Your task to perform on an android device: Open wifi settings Image 0: 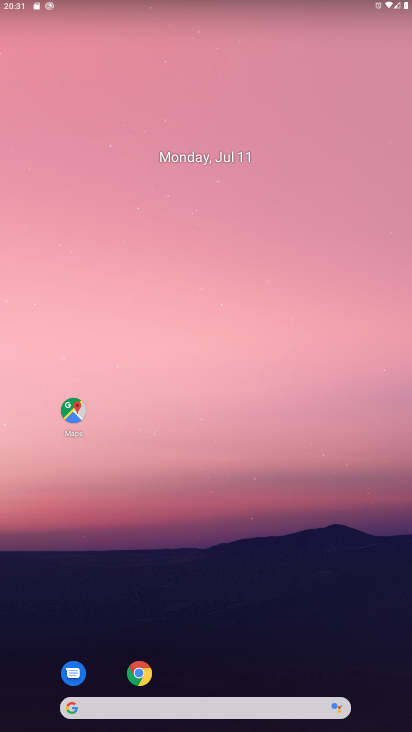
Step 0: drag from (206, 680) to (251, 6)
Your task to perform on an android device: Open wifi settings Image 1: 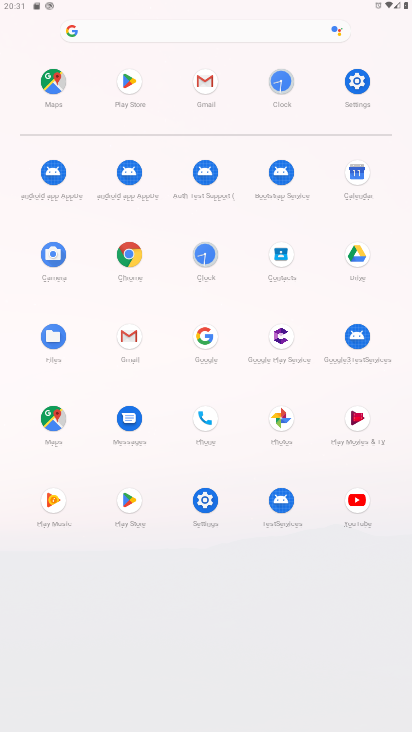
Step 1: click (356, 77)
Your task to perform on an android device: Open wifi settings Image 2: 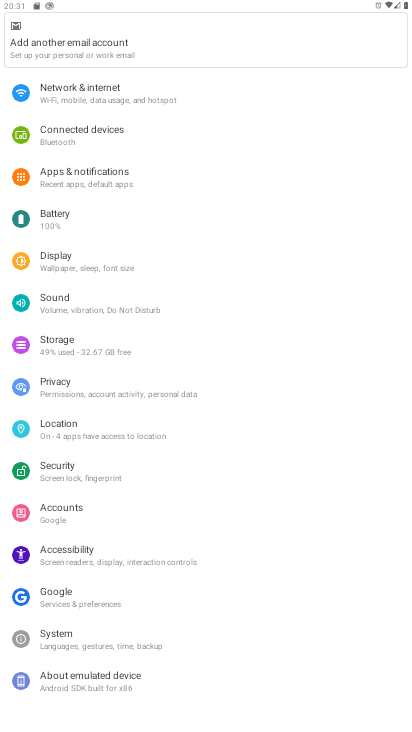
Step 2: click (134, 90)
Your task to perform on an android device: Open wifi settings Image 3: 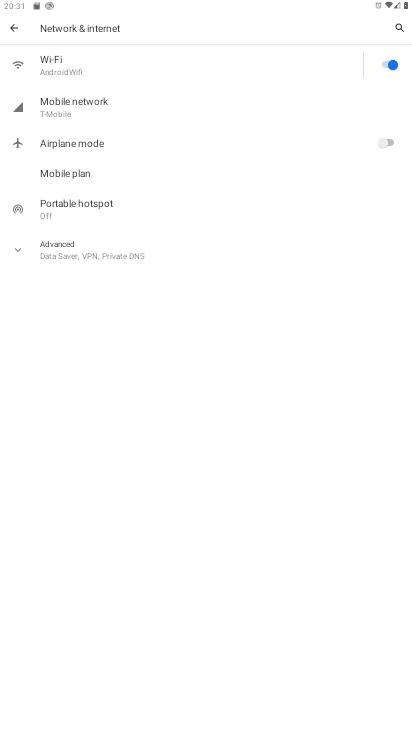
Step 3: click (84, 62)
Your task to perform on an android device: Open wifi settings Image 4: 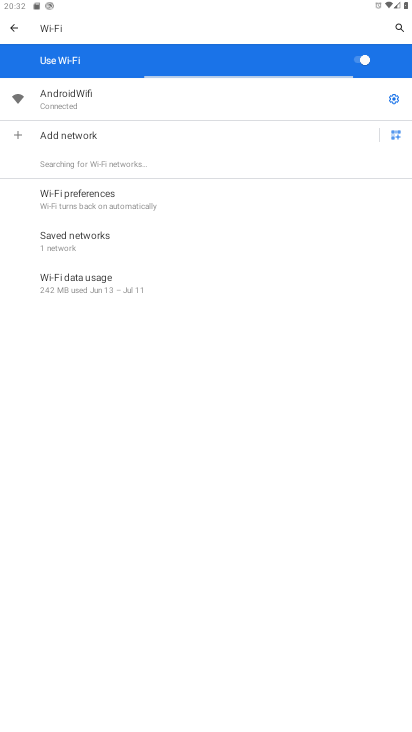
Step 4: task complete